Your task to perform on an android device: Show me productivity apps on the Play Store Image 0: 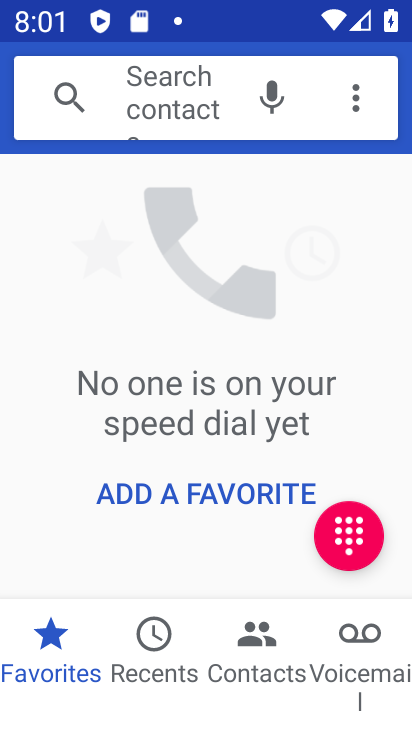
Step 0: press back button
Your task to perform on an android device: Show me productivity apps on the Play Store Image 1: 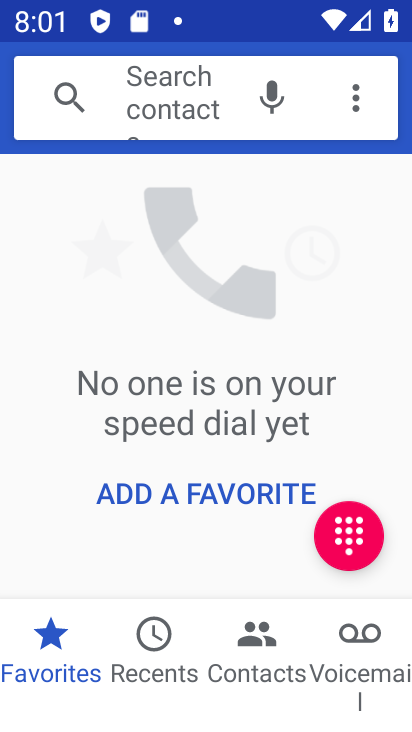
Step 1: press back button
Your task to perform on an android device: Show me productivity apps on the Play Store Image 2: 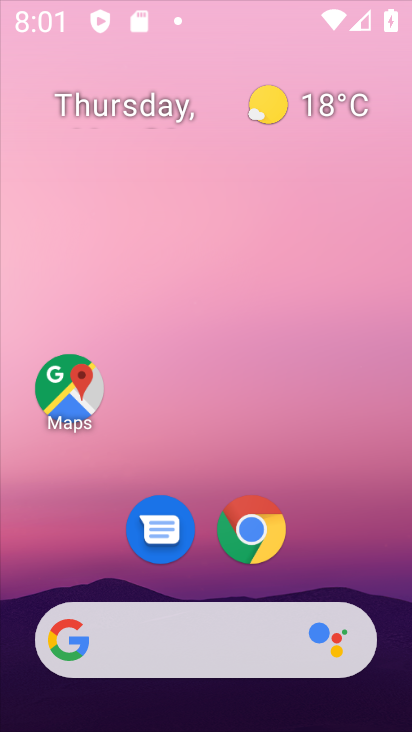
Step 2: press back button
Your task to perform on an android device: Show me productivity apps on the Play Store Image 3: 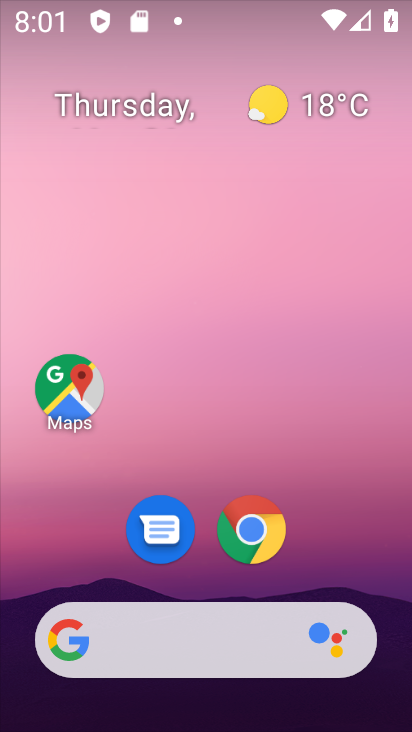
Step 3: drag from (322, 714) to (136, 103)
Your task to perform on an android device: Show me productivity apps on the Play Store Image 4: 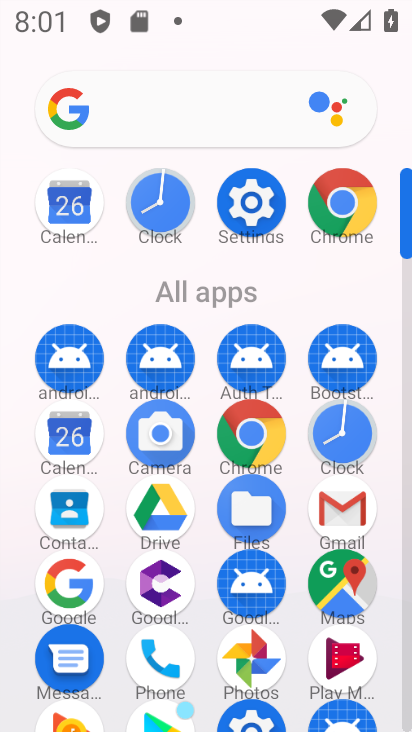
Step 4: drag from (199, 632) to (123, 206)
Your task to perform on an android device: Show me productivity apps on the Play Store Image 5: 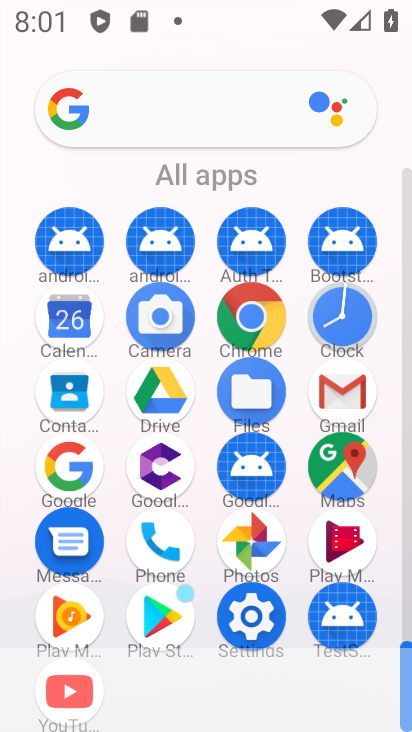
Step 5: click (157, 612)
Your task to perform on an android device: Show me productivity apps on the Play Store Image 6: 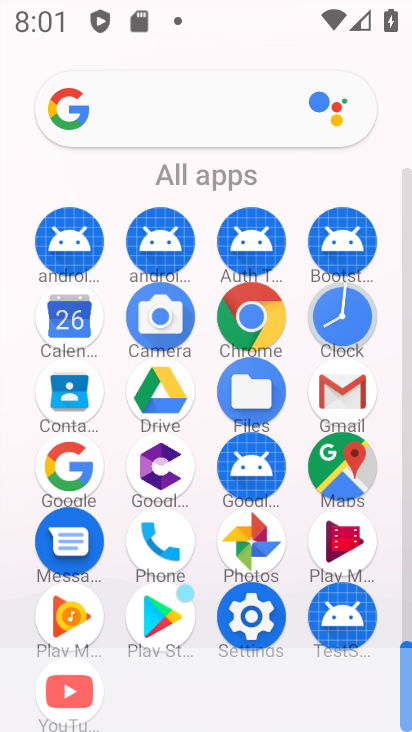
Step 6: click (159, 611)
Your task to perform on an android device: Show me productivity apps on the Play Store Image 7: 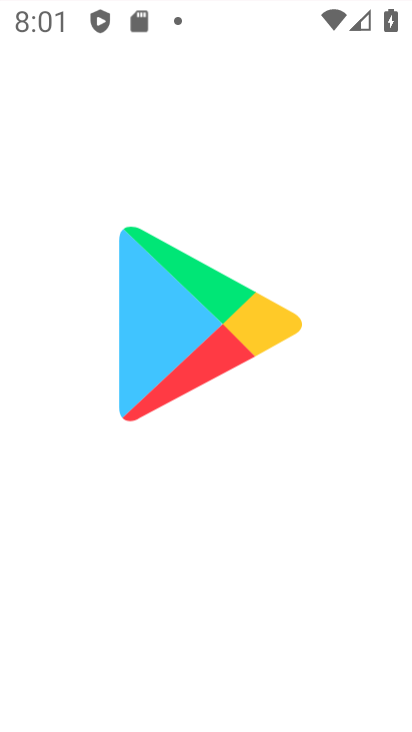
Step 7: click (165, 609)
Your task to perform on an android device: Show me productivity apps on the Play Store Image 8: 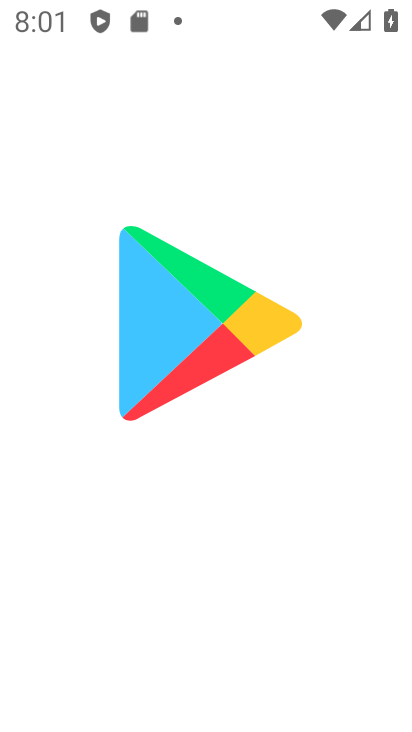
Step 8: click (170, 607)
Your task to perform on an android device: Show me productivity apps on the Play Store Image 9: 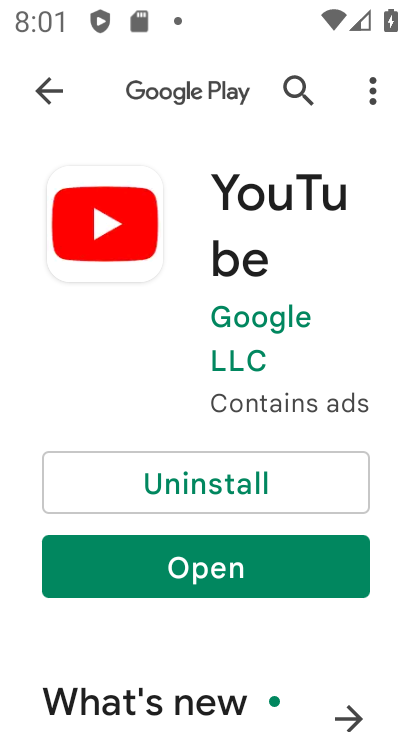
Step 9: press back button
Your task to perform on an android device: Show me productivity apps on the Play Store Image 10: 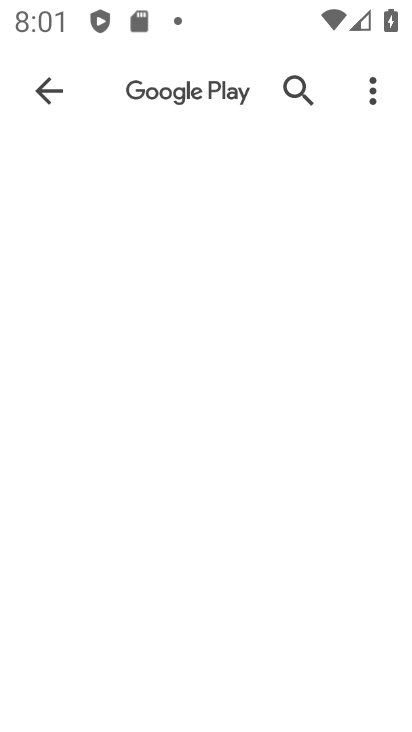
Step 10: press back button
Your task to perform on an android device: Show me productivity apps on the Play Store Image 11: 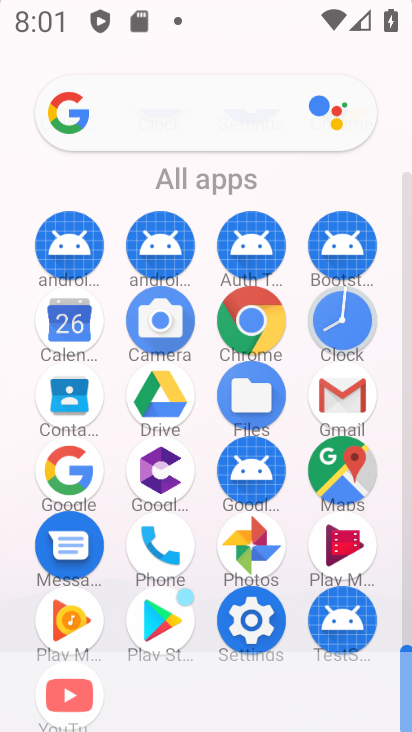
Step 11: press back button
Your task to perform on an android device: Show me productivity apps on the Play Store Image 12: 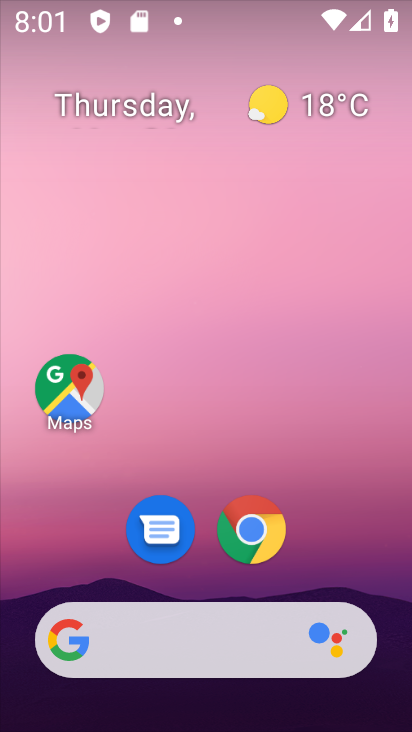
Step 12: click (145, 306)
Your task to perform on an android device: Show me productivity apps on the Play Store Image 13: 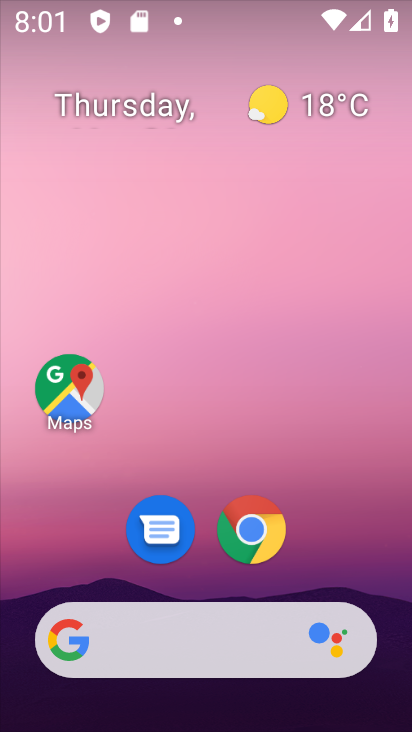
Step 13: drag from (163, 603) to (89, 98)
Your task to perform on an android device: Show me productivity apps on the Play Store Image 14: 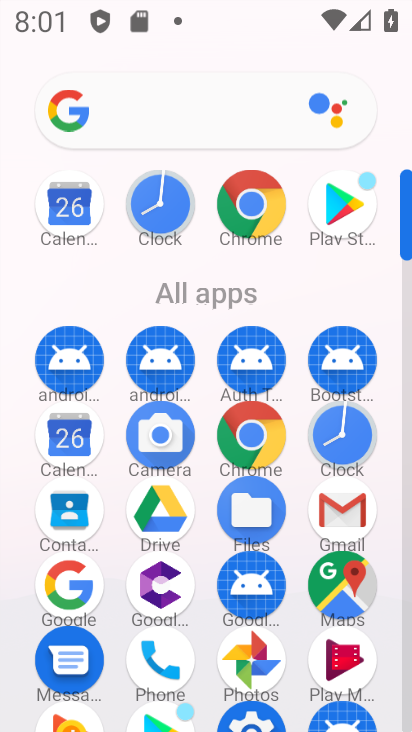
Step 14: drag from (274, 659) to (177, 8)
Your task to perform on an android device: Show me productivity apps on the Play Store Image 15: 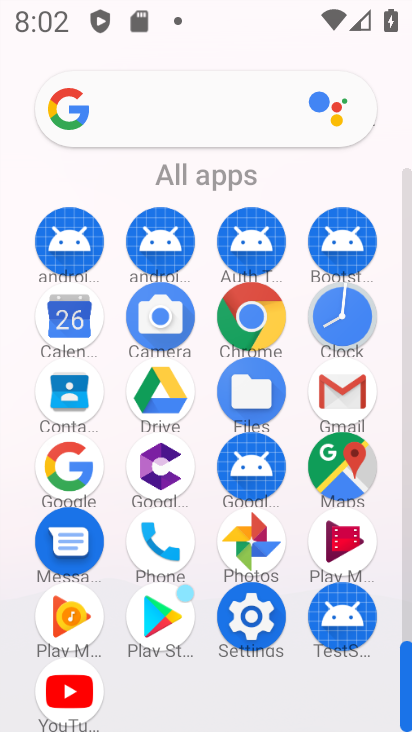
Step 15: click (163, 621)
Your task to perform on an android device: Show me productivity apps on the Play Store Image 16: 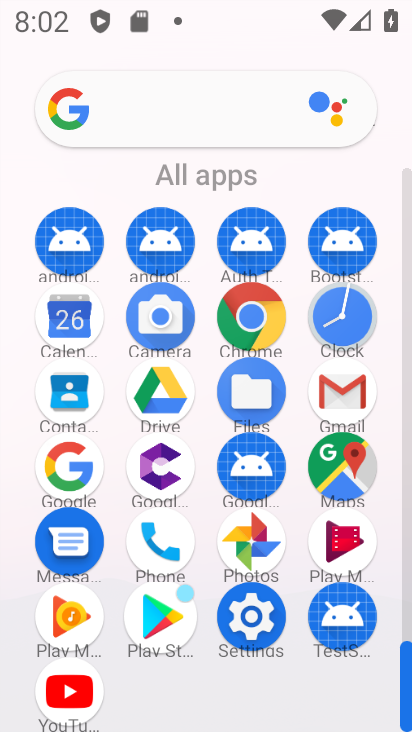
Step 16: click (161, 623)
Your task to perform on an android device: Show me productivity apps on the Play Store Image 17: 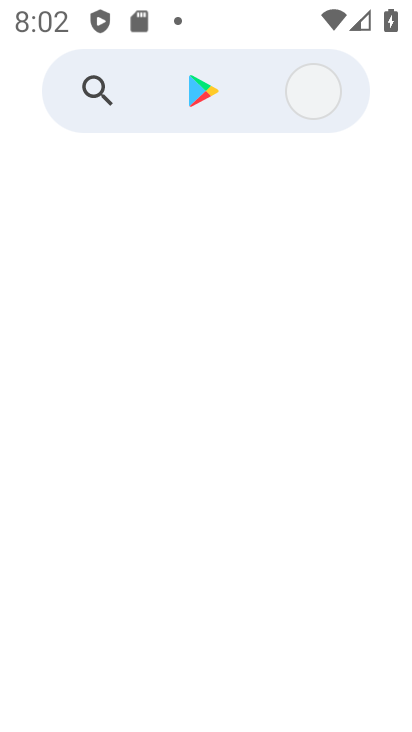
Step 17: click (159, 624)
Your task to perform on an android device: Show me productivity apps on the Play Store Image 18: 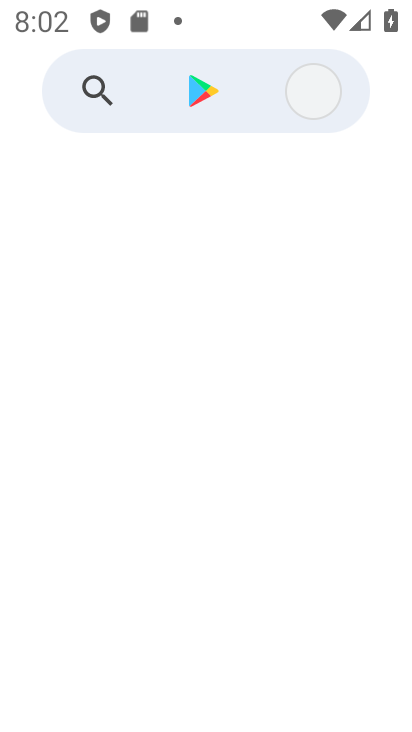
Step 18: click (164, 626)
Your task to perform on an android device: Show me productivity apps on the Play Store Image 19: 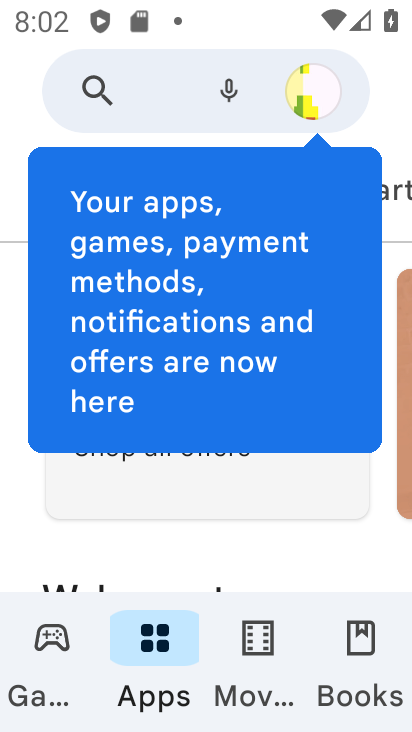
Step 19: click (128, 90)
Your task to perform on an android device: Show me productivity apps on the Play Store Image 20: 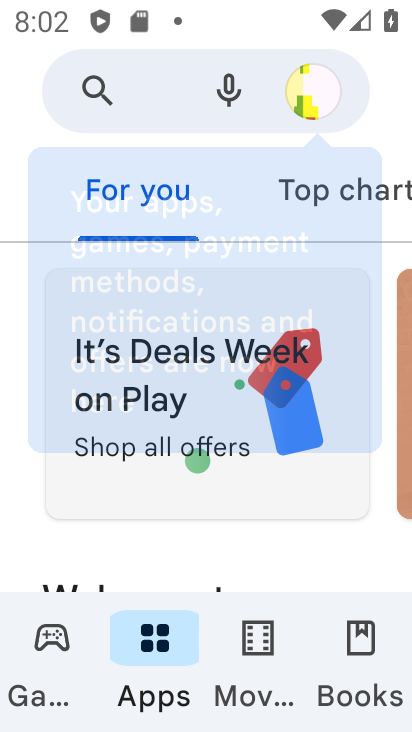
Step 20: click (127, 90)
Your task to perform on an android device: Show me productivity apps on the Play Store Image 21: 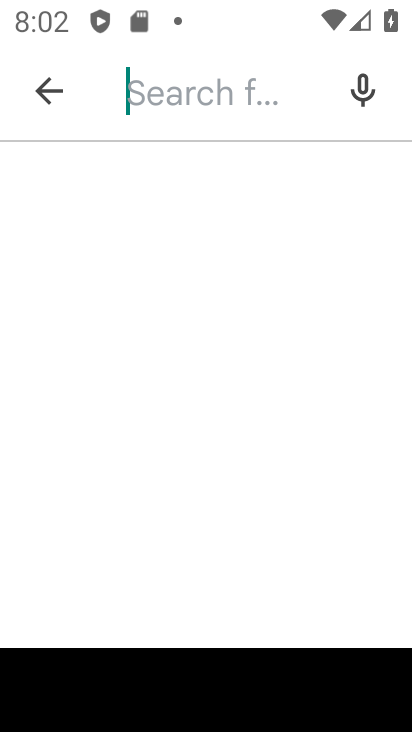
Step 21: click (130, 87)
Your task to perform on an android device: Show me productivity apps on the Play Store Image 22: 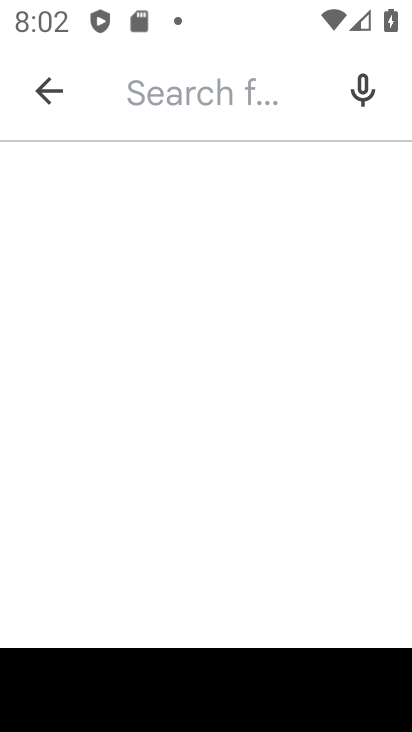
Step 22: type "PRODUCTIVITY APPS"
Your task to perform on an android device: Show me productivity apps on the Play Store Image 23: 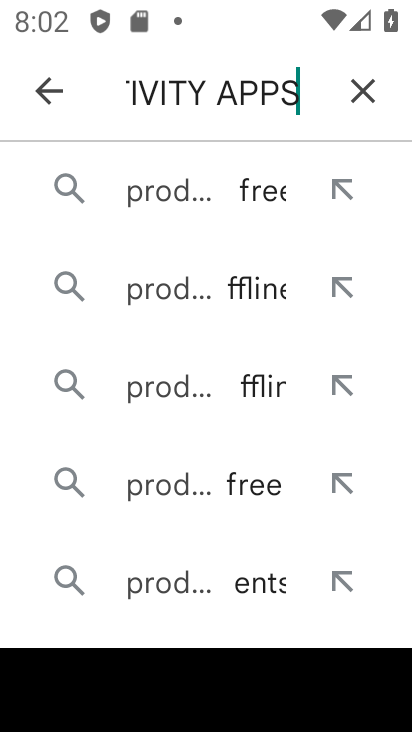
Step 23: click (210, 189)
Your task to perform on an android device: Show me productivity apps on the Play Store Image 24: 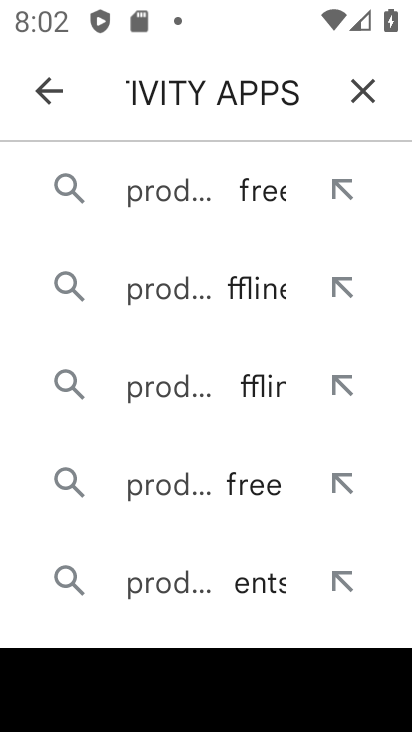
Step 24: click (210, 189)
Your task to perform on an android device: Show me productivity apps on the Play Store Image 25: 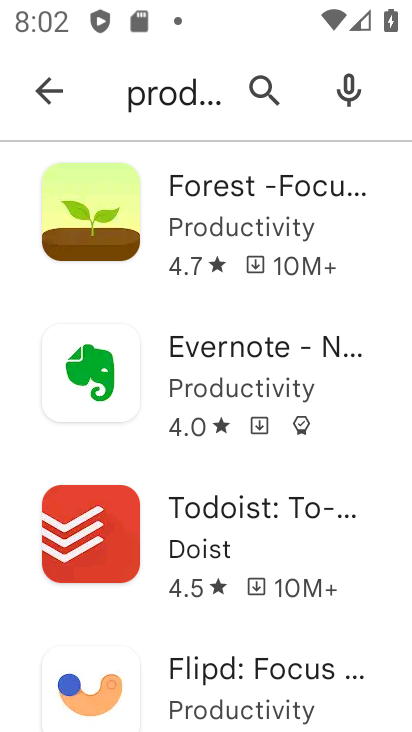
Step 25: task complete